Your task to perform on an android device: open a bookmark in the chrome app Image 0: 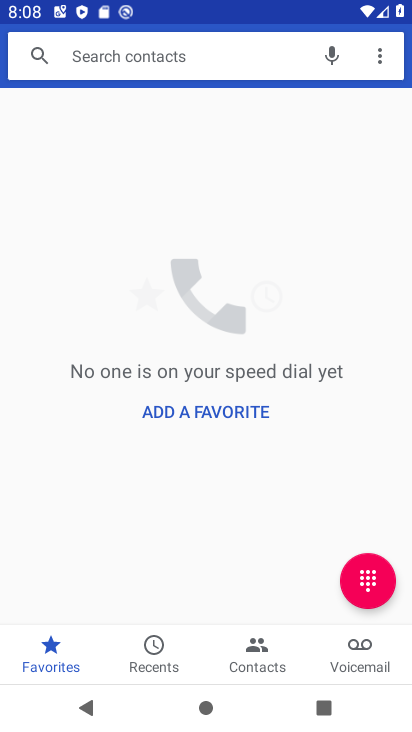
Step 0: press home button
Your task to perform on an android device: open a bookmark in the chrome app Image 1: 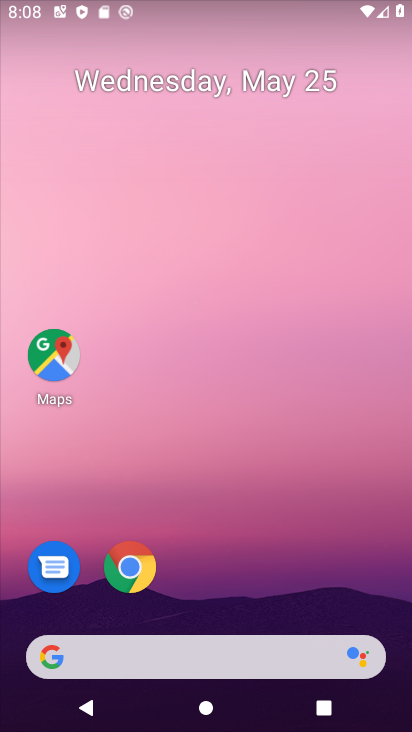
Step 1: click (154, 581)
Your task to perform on an android device: open a bookmark in the chrome app Image 2: 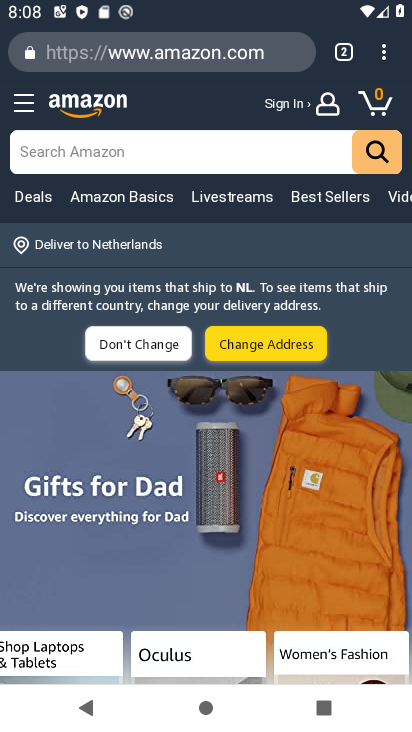
Step 2: click (390, 65)
Your task to perform on an android device: open a bookmark in the chrome app Image 3: 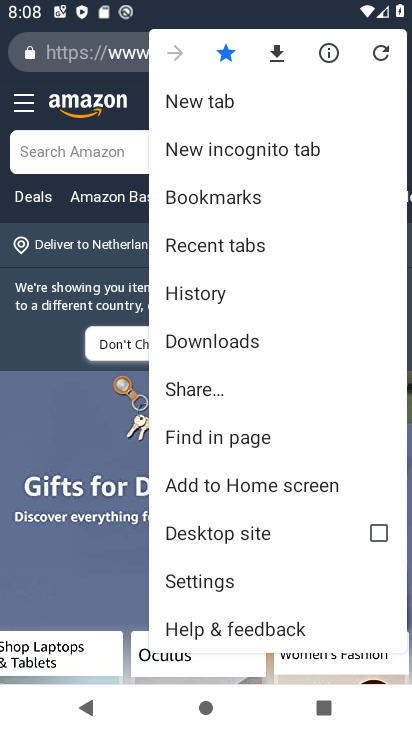
Step 3: click (230, 211)
Your task to perform on an android device: open a bookmark in the chrome app Image 4: 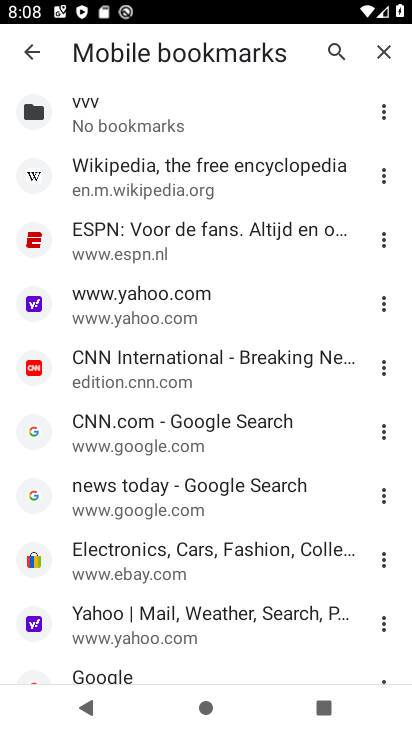
Step 4: click (188, 159)
Your task to perform on an android device: open a bookmark in the chrome app Image 5: 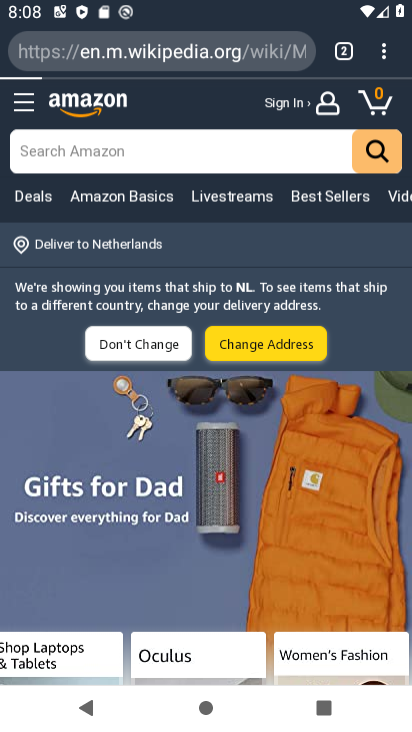
Step 5: task complete